Your task to perform on an android device: turn pop-ups off in chrome Image 0: 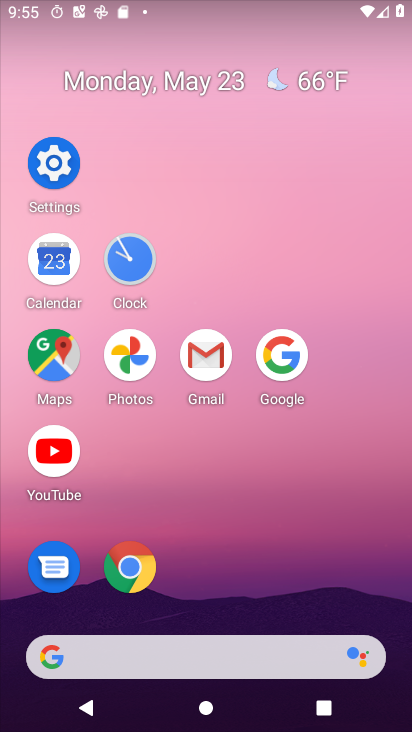
Step 0: click (123, 577)
Your task to perform on an android device: turn pop-ups off in chrome Image 1: 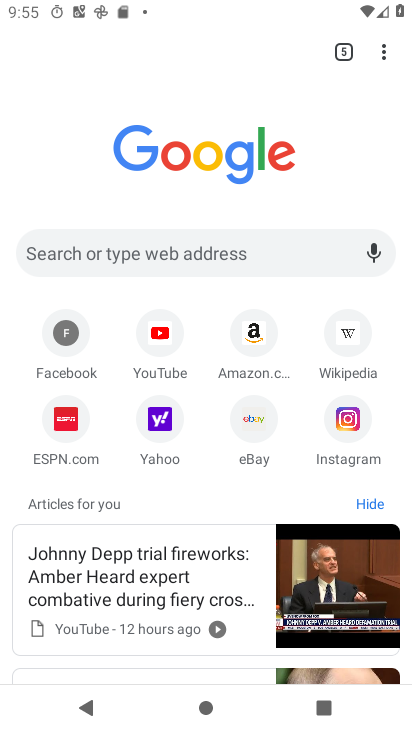
Step 1: click (403, 59)
Your task to perform on an android device: turn pop-ups off in chrome Image 2: 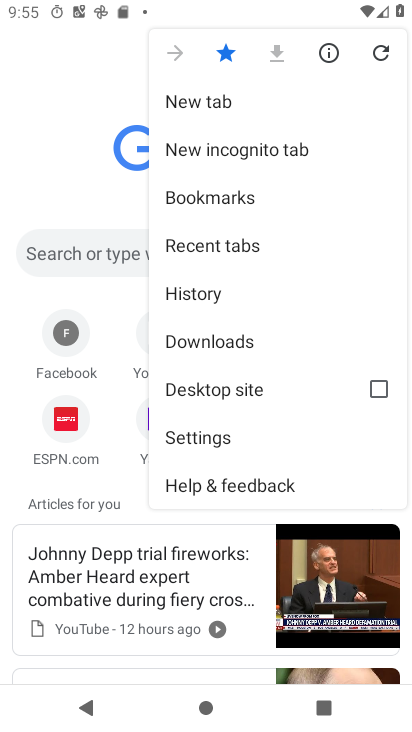
Step 2: click (253, 434)
Your task to perform on an android device: turn pop-ups off in chrome Image 3: 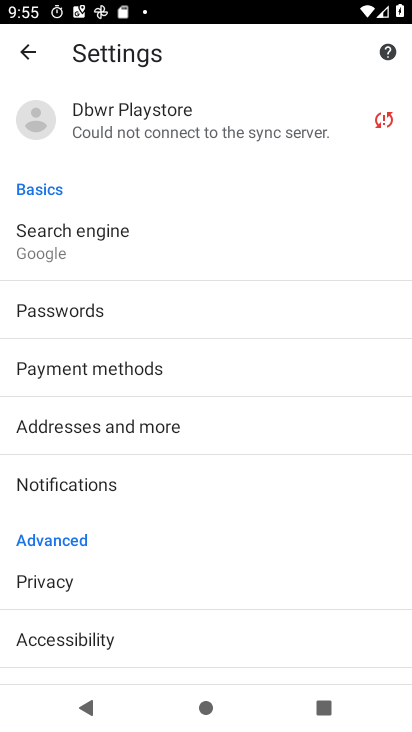
Step 3: drag from (197, 530) to (203, 189)
Your task to perform on an android device: turn pop-ups off in chrome Image 4: 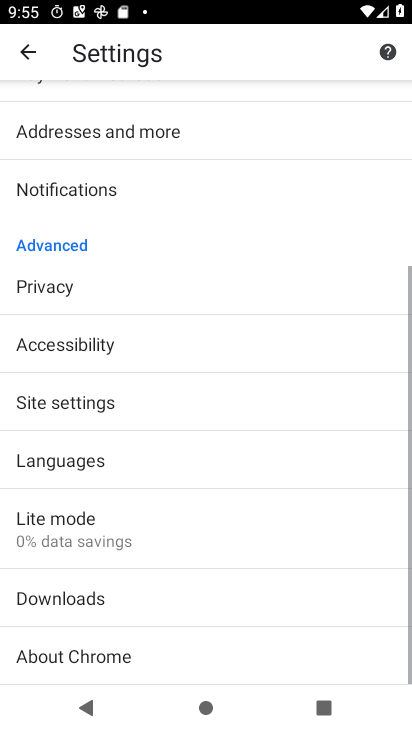
Step 4: drag from (146, 586) to (154, 272)
Your task to perform on an android device: turn pop-ups off in chrome Image 5: 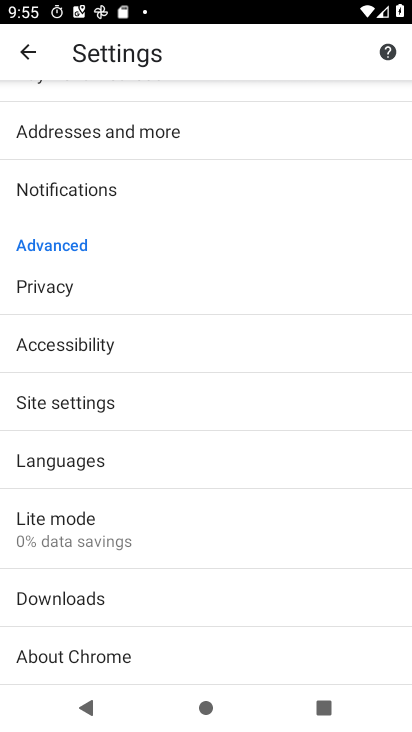
Step 5: click (188, 408)
Your task to perform on an android device: turn pop-ups off in chrome Image 6: 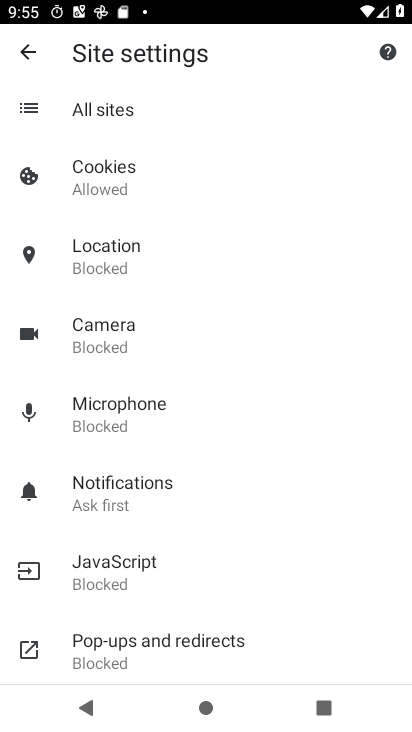
Step 6: click (138, 641)
Your task to perform on an android device: turn pop-ups off in chrome Image 7: 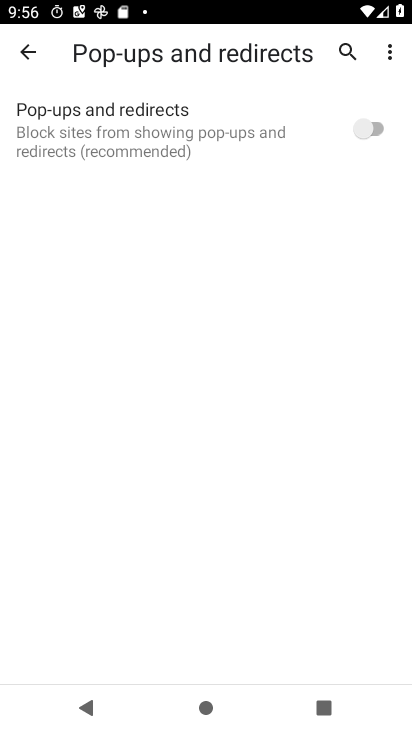
Step 7: task complete